Your task to perform on an android device: choose inbox layout in the gmail app Image 0: 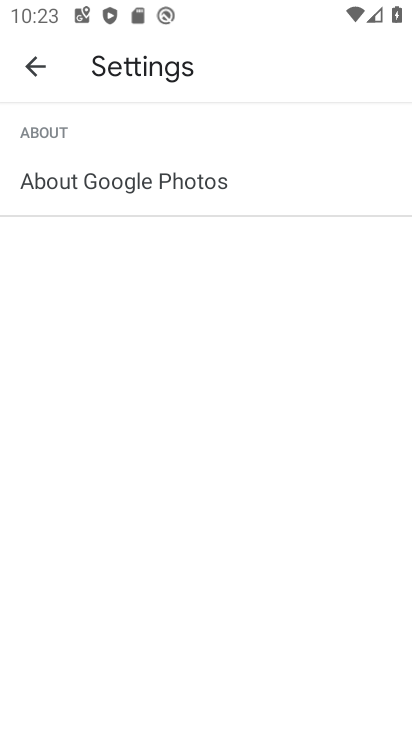
Step 0: drag from (336, 606) to (334, 452)
Your task to perform on an android device: choose inbox layout in the gmail app Image 1: 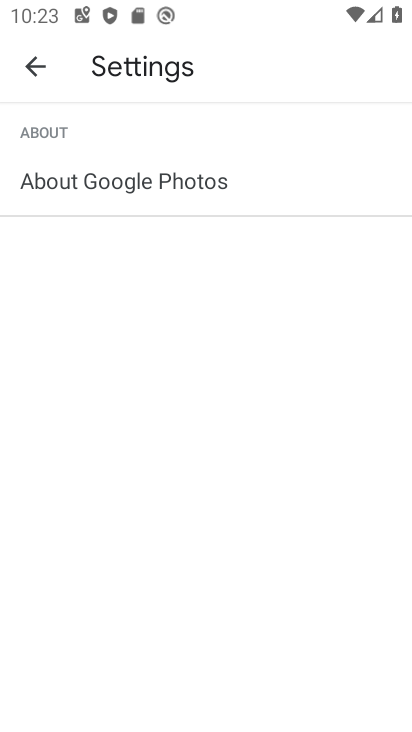
Step 1: press home button
Your task to perform on an android device: choose inbox layout in the gmail app Image 2: 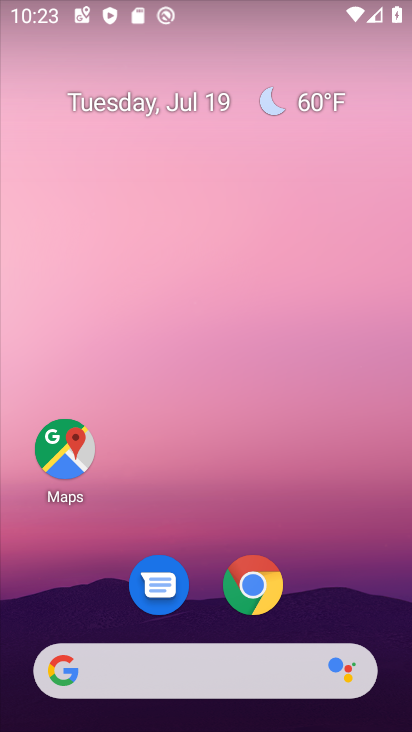
Step 2: drag from (328, 617) to (349, 117)
Your task to perform on an android device: choose inbox layout in the gmail app Image 3: 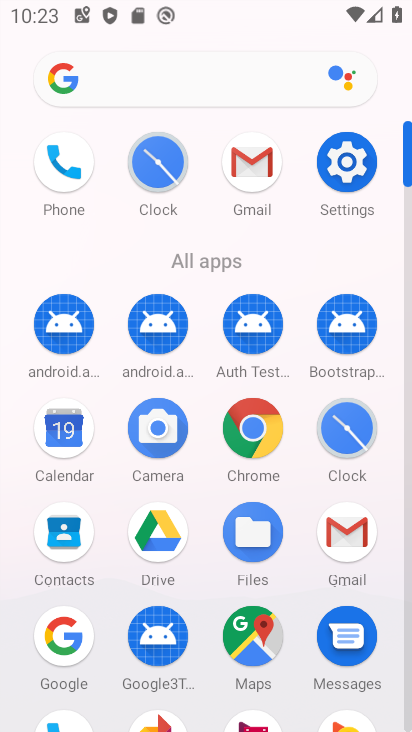
Step 3: click (251, 172)
Your task to perform on an android device: choose inbox layout in the gmail app Image 4: 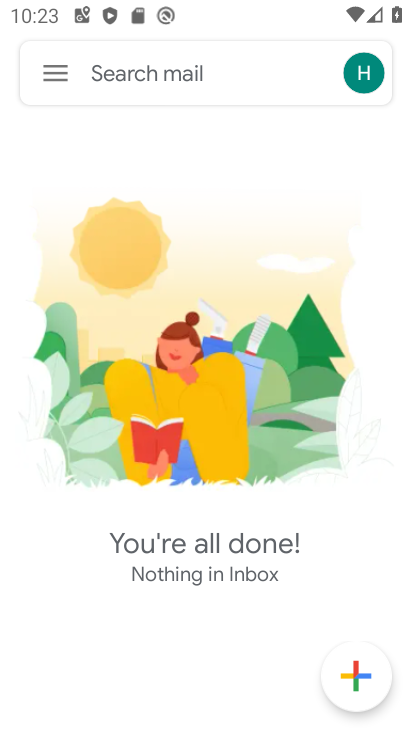
Step 4: click (58, 68)
Your task to perform on an android device: choose inbox layout in the gmail app Image 5: 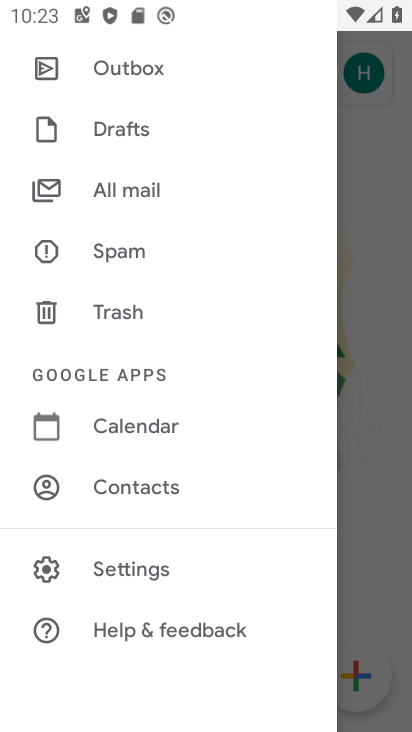
Step 5: click (128, 573)
Your task to perform on an android device: choose inbox layout in the gmail app Image 6: 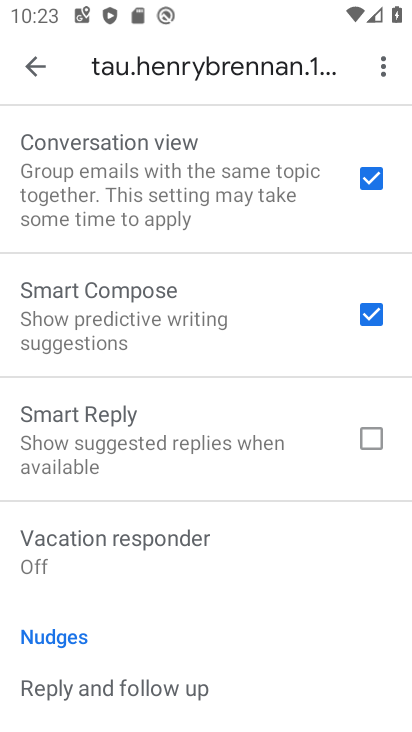
Step 6: drag from (215, 190) to (258, 637)
Your task to perform on an android device: choose inbox layout in the gmail app Image 7: 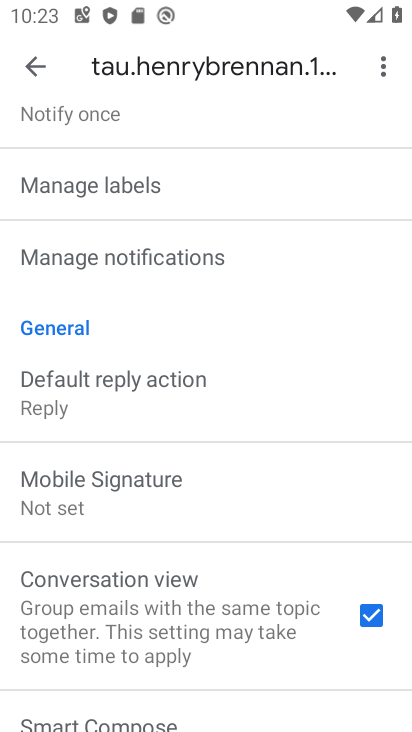
Step 7: drag from (248, 203) to (220, 668)
Your task to perform on an android device: choose inbox layout in the gmail app Image 8: 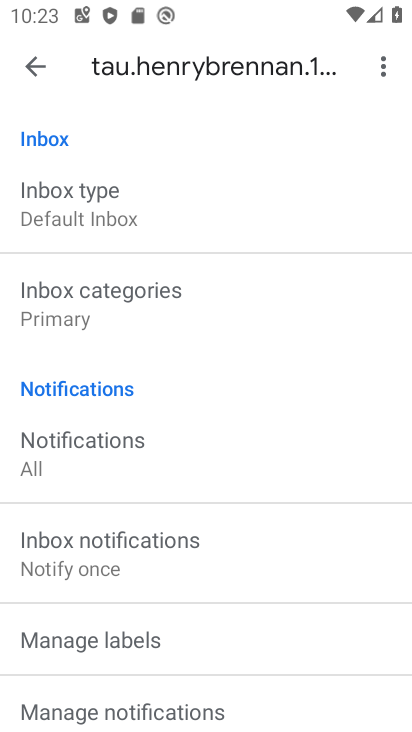
Step 8: click (99, 203)
Your task to perform on an android device: choose inbox layout in the gmail app Image 9: 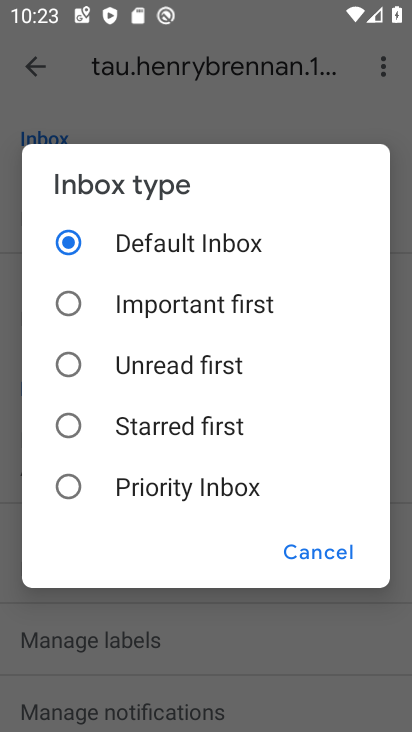
Step 9: click (69, 302)
Your task to perform on an android device: choose inbox layout in the gmail app Image 10: 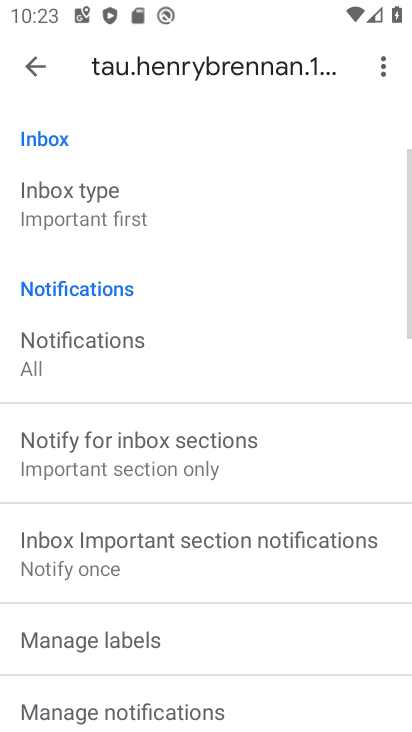
Step 10: task complete